Your task to perform on an android device: turn on sleep mode Image 0: 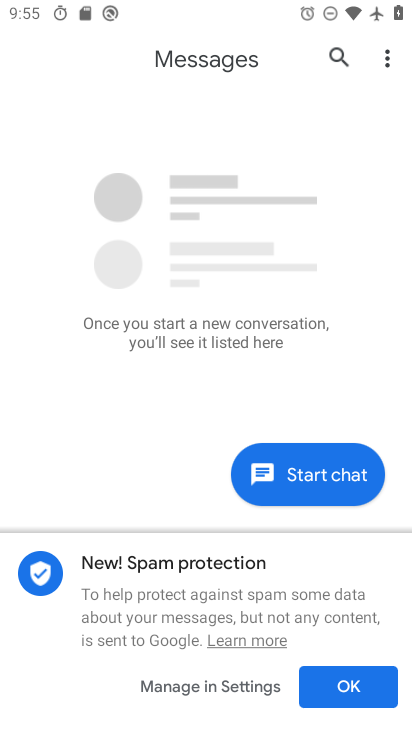
Step 0: press home button
Your task to perform on an android device: turn on sleep mode Image 1: 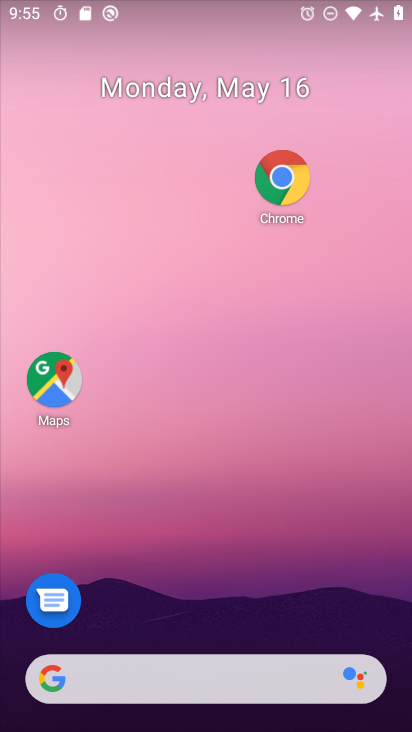
Step 1: drag from (213, 680) to (337, 173)
Your task to perform on an android device: turn on sleep mode Image 2: 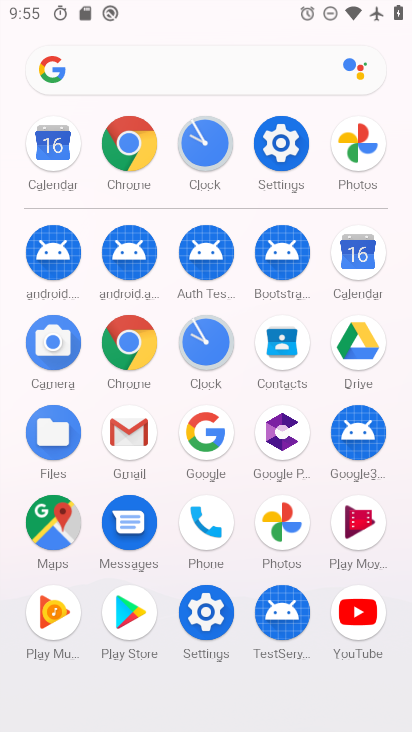
Step 2: click (293, 154)
Your task to perform on an android device: turn on sleep mode Image 3: 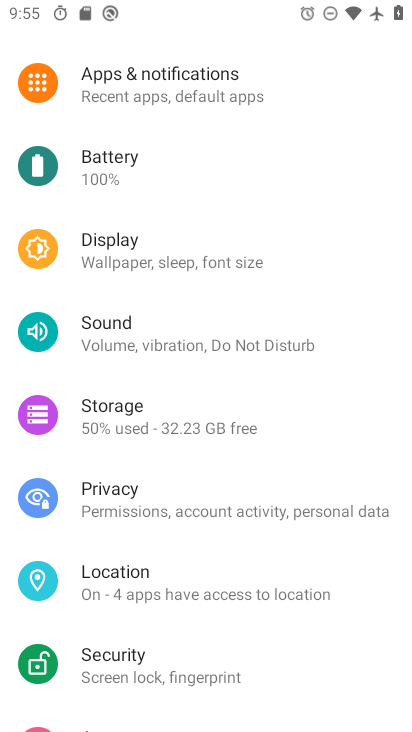
Step 3: click (198, 262)
Your task to perform on an android device: turn on sleep mode Image 4: 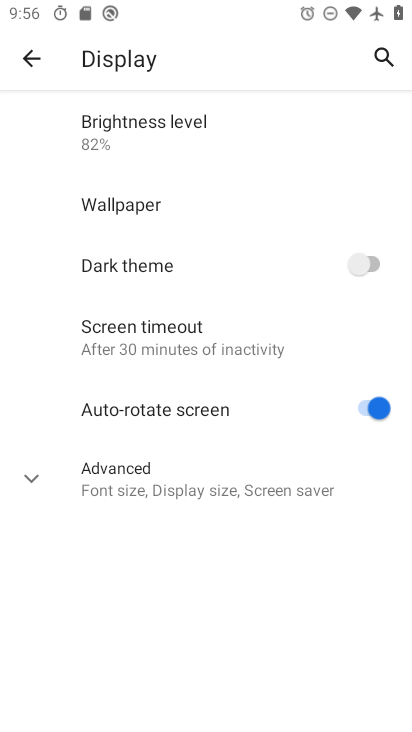
Step 4: task complete